Your task to perform on an android device: Search for seafood restaurants on Google Maps Image 0: 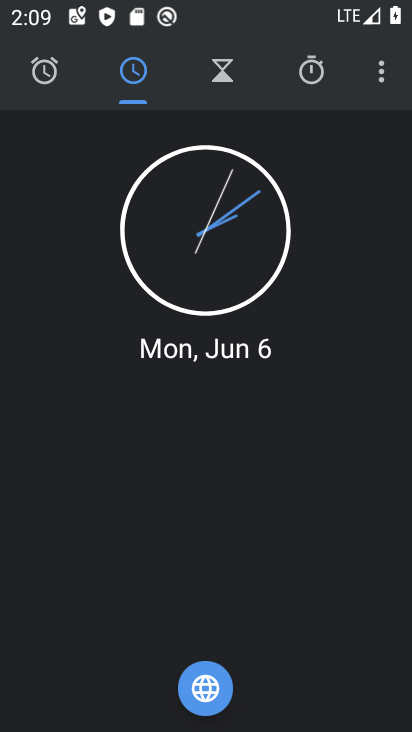
Step 0: press home button
Your task to perform on an android device: Search for seafood restaurants on Google Maps Image 1: 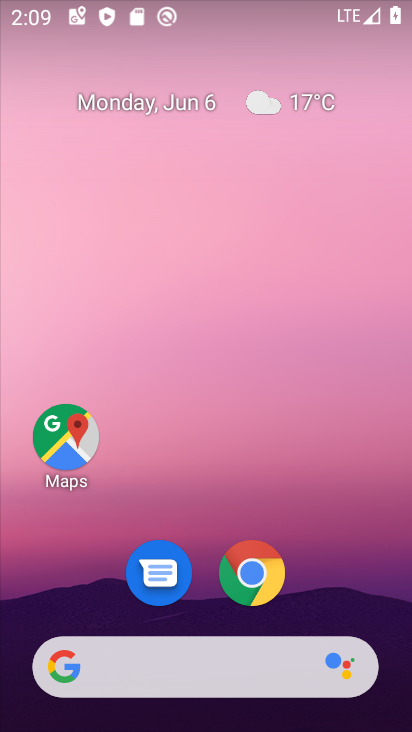
Step 1: drag from (348, 560) to (351, 202)
Your task to perform on an android device: Search for seafood restaurants on Google Maps Image 2: 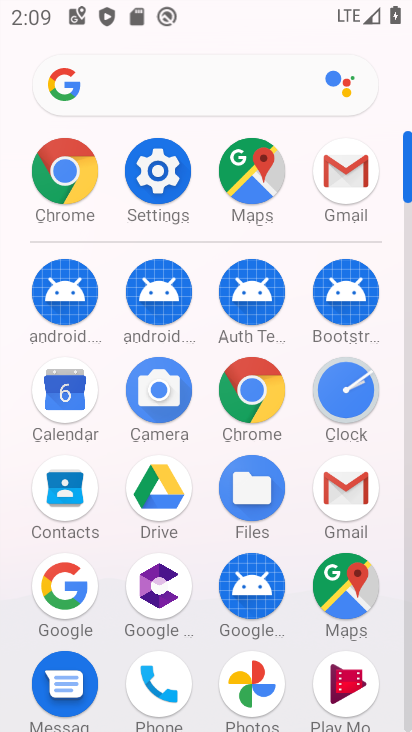
Step 2: click (265, 192)
Your task to perform on an android device: Search for seafood restaurants on Google Maps Image 3: 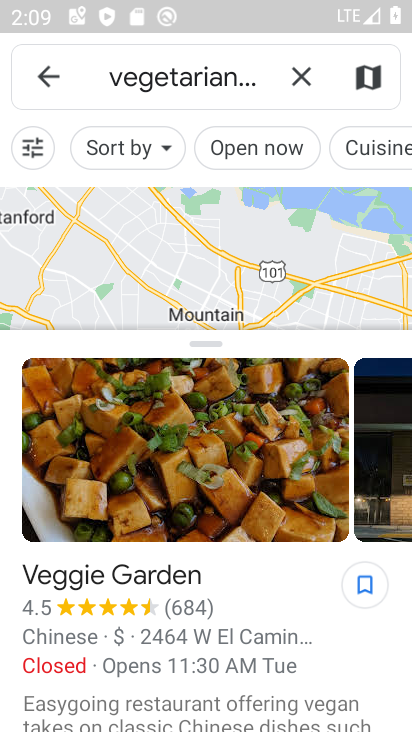
Step 3: click (308, 77)
Your task to perform on an android device: Search for seafood restaurants on Google Maps Image 4: 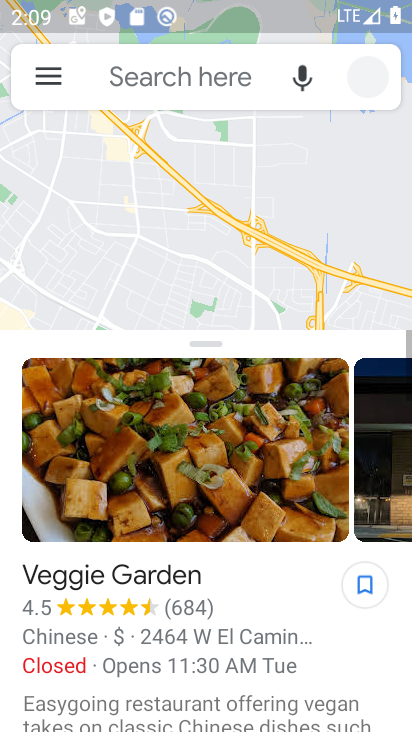
Step 4: click (177, 86)
Your task to perform on an android device: Search for seafood restaurants on Google Maps Image 5: 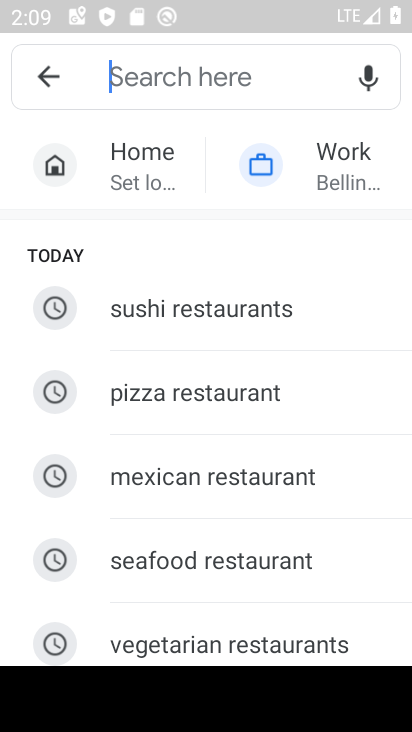
Step 5: type "seafood restaurants"
Your task to perform on an android device: Search for seafood restaurants on Google Maps Image 6: 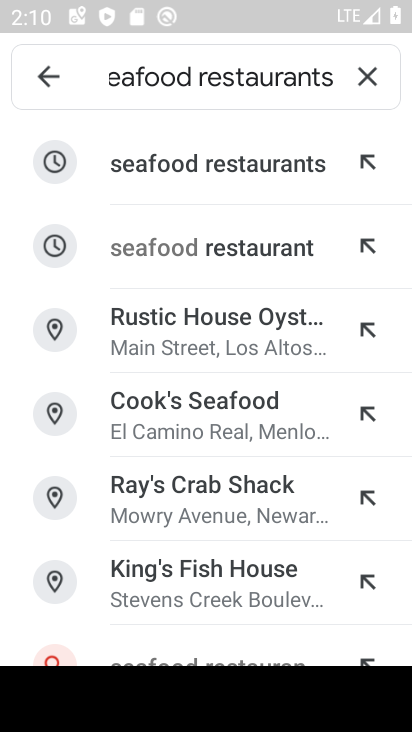
Step 6: click (263, 178)
Your task to perform on an android device: Search for seafood restaurants on Google Maps Image 7: 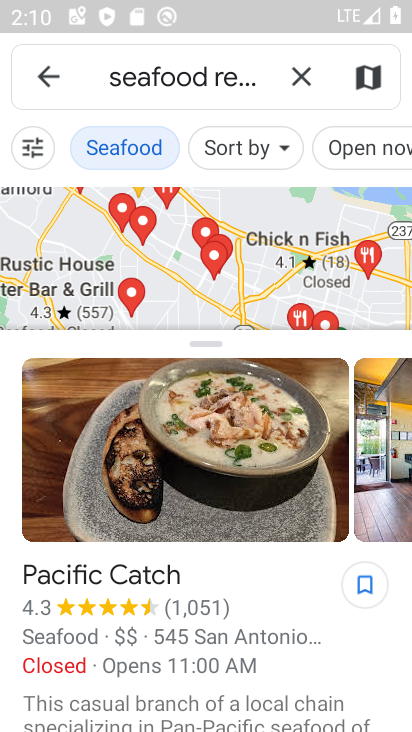
Step 7: task complete